Your task to perform on an android device: see creations saved in the google photos Image 0: 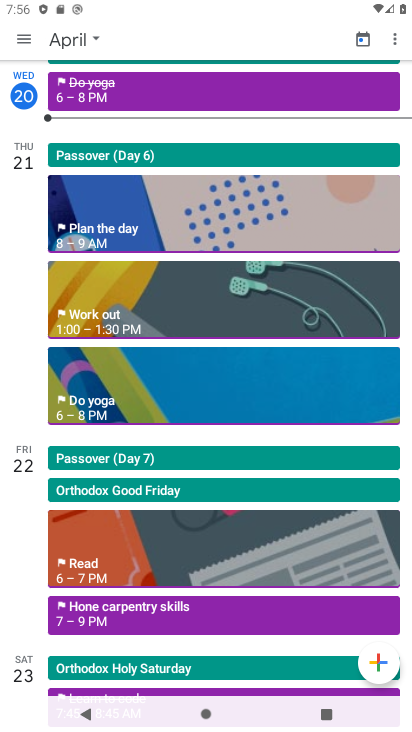
Step 0: press home button
Your task to perform on an android device: see creations saved in the google photos Image 1: 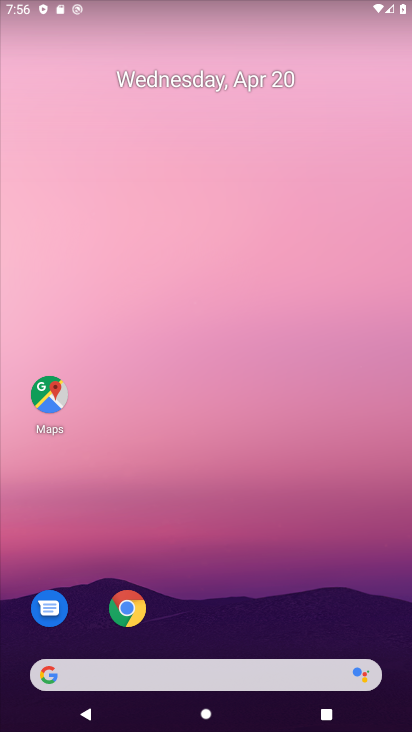
Step 1: drag from (195, 602) to (201, 235)
Your task to perform on an android device: see creations saved in the google photos Image 2: 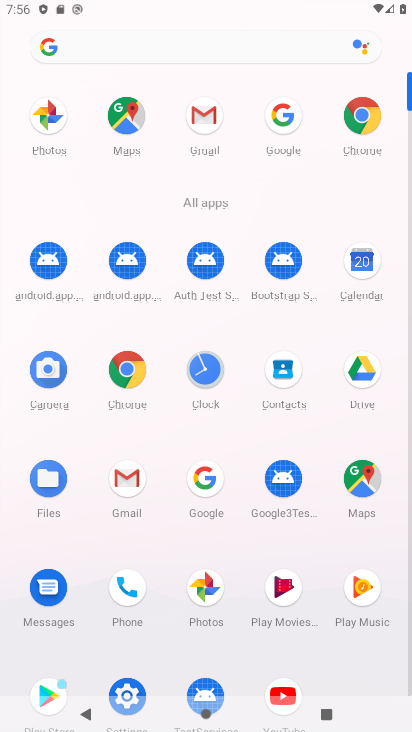
Step 2: click (205, 591)
Your task to perform on an android device: see creations saved in the google photos Image 3: 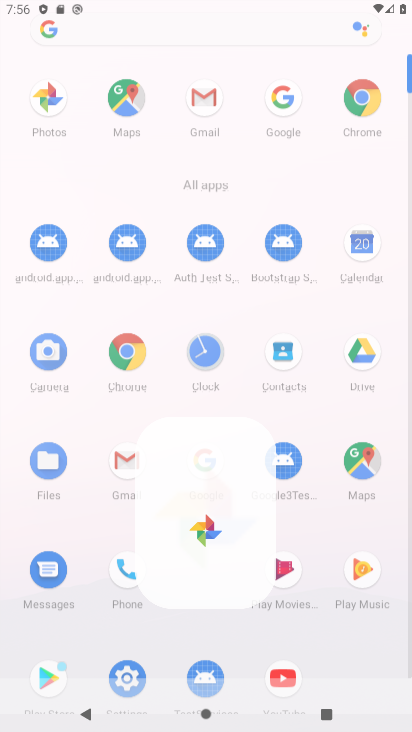
Step 3: click (205, 591)
Your task to perform on an android device: see creations saved in the google photos Image 4: 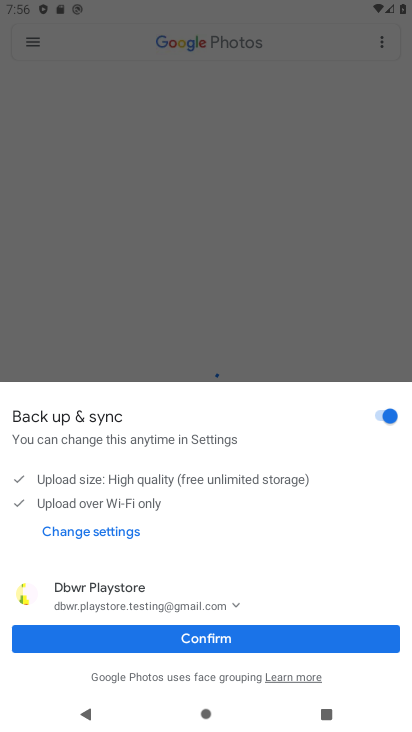
Step 4: click (220, 639)
Your task to perform on an android device: see creations saved in the google photos Image 5: 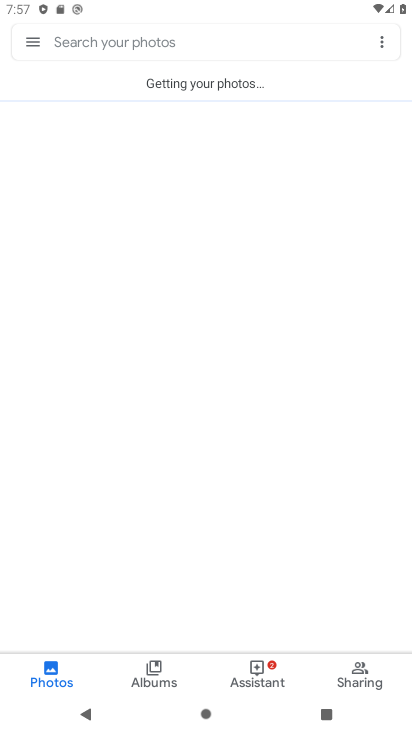
Step 5: click (130, 46)
Your task to perform on an android device: see creations saved in the google photos Image 6: 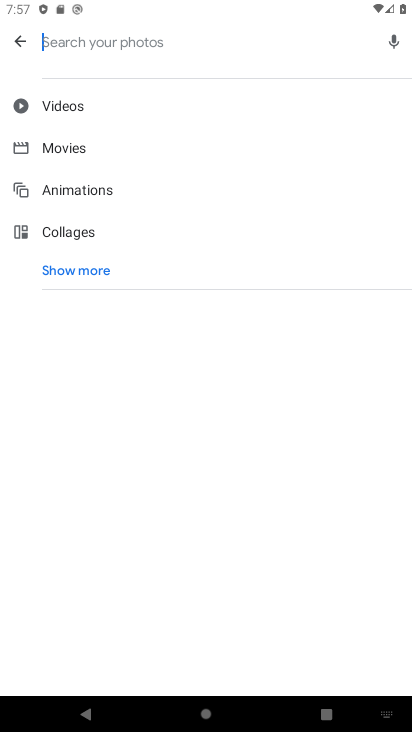
Step 6: click (71, 273)
Your task to perform on an android device: see creations saved in the google photos Image 7: 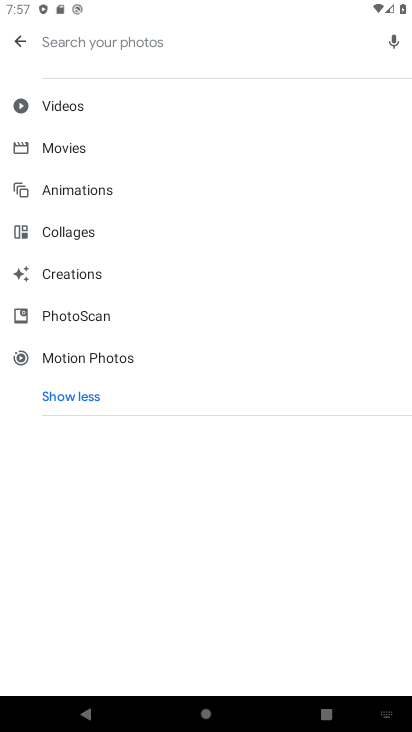
Step 7: click (87, 278)
Your task to perform on an android device: see creations saved in the google photos Image 8: 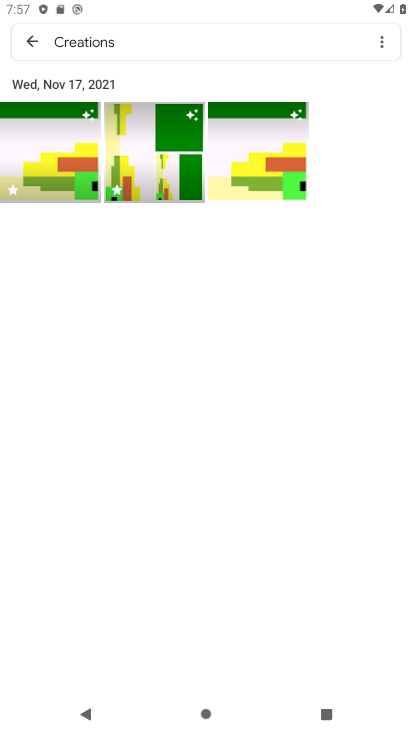
Step 8: task complete